Your task to perform on an android device: Search for Italian restaurants on Maps Image 0: 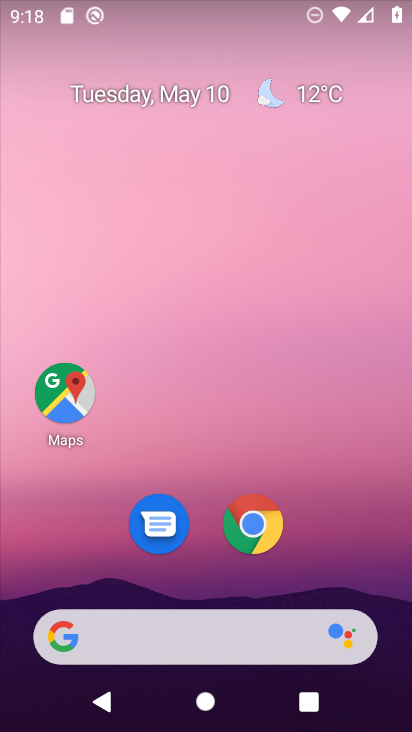
Step 0: click (61, 395)
Your task to perform on an android device: Search for Italian restaurants on Maps Image 1: 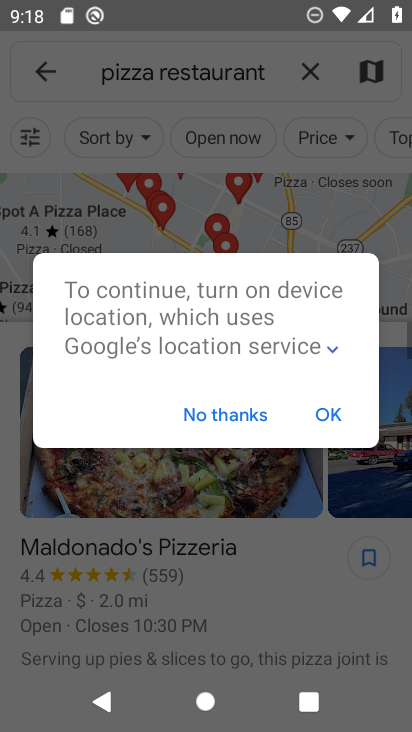
Step 1: click (312, 58)
Your task to perform on an android device: Search for Italian restaurants on Maps Image 2: 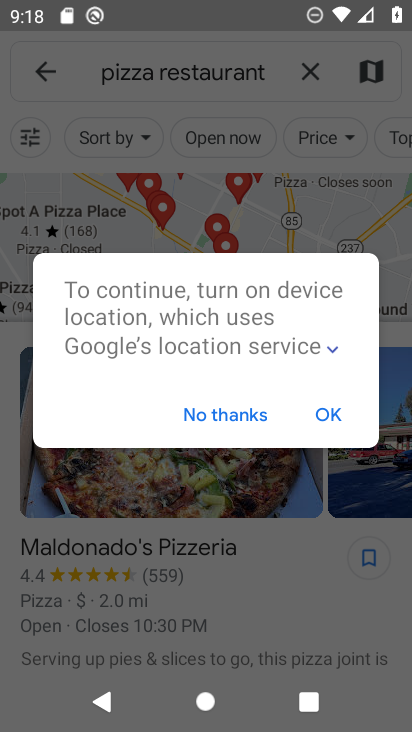
Step 2: click (307, 62)
Your task to perform on an android device: Search for Italian restaurants on Maps Image 3: 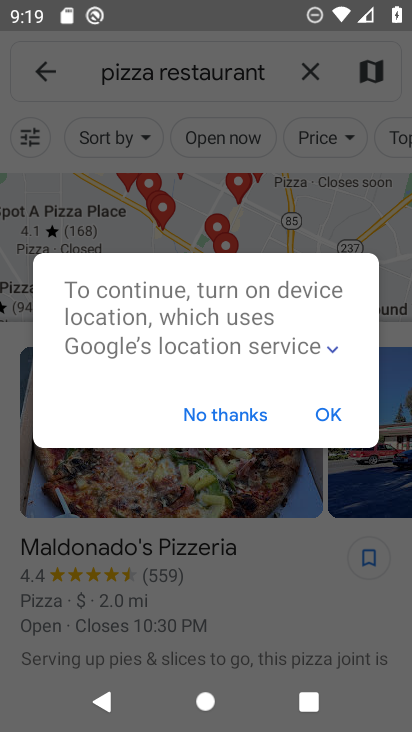
Step 3: click (332, 417)
Your task to perform on an android device: Search for Italian restaurants on Maps Image 4: 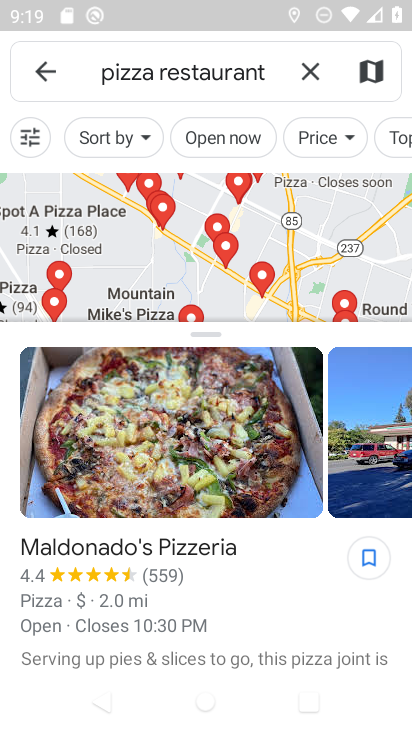
Step 4: click (307, 70)
Your task to perform on an android device: Search for Italian restaurants on Maps Image 5: 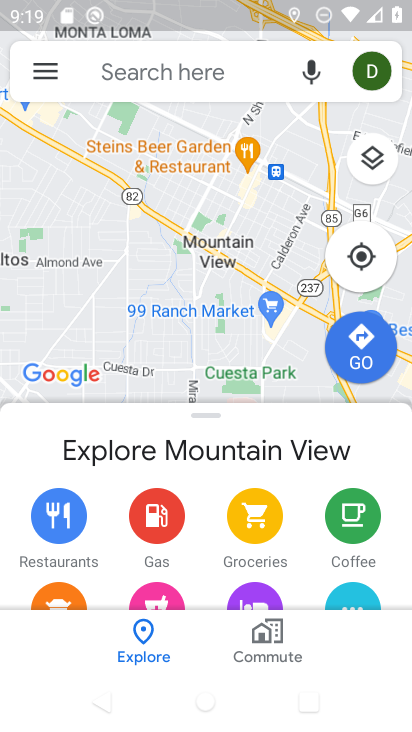
Step 5: click (216, 66)
Your task to perform on an android device: Search for Italian restaurants on Maps Image 6: 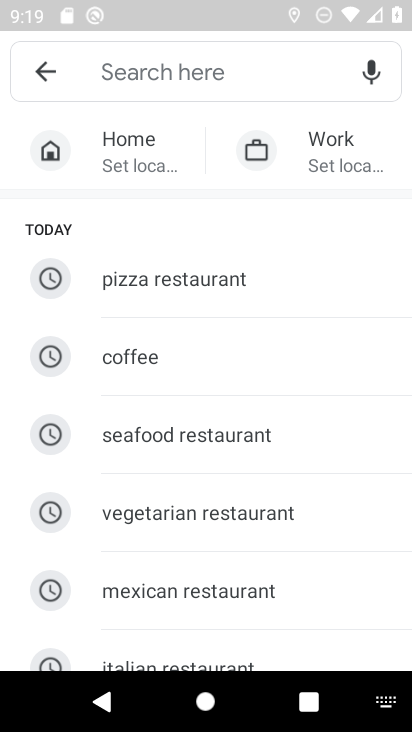
Step 6: click (210, 653)
Your task to perform on an android device: Search for Italian restaurants on Maps Image 7: 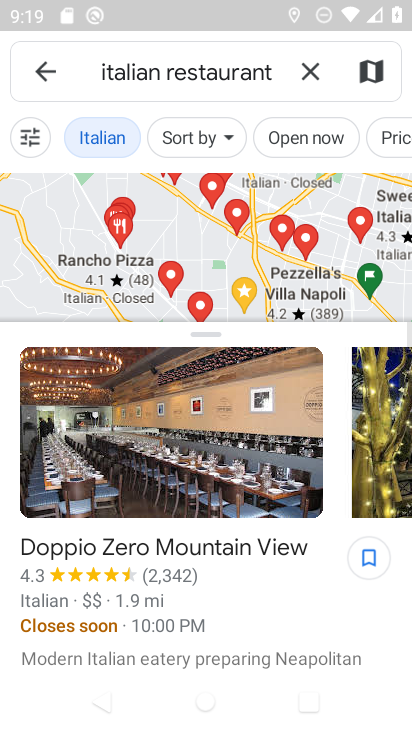
Step 7: task complete